Your task to perform on an android device: What's the weather? Image 0: 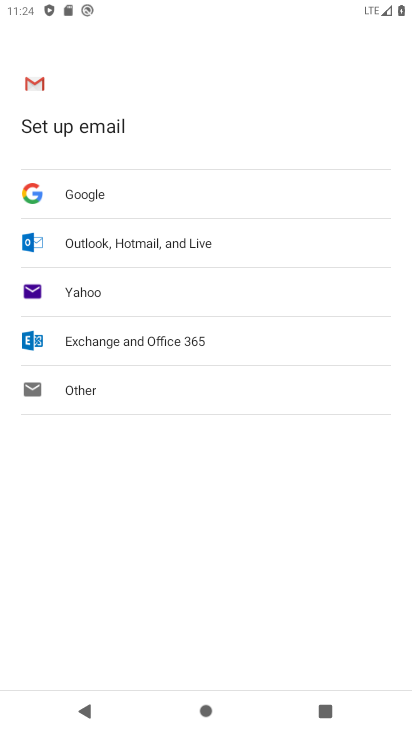
Step 0: press home button
Your task to perform on an android device: What's the weather? Image 1: 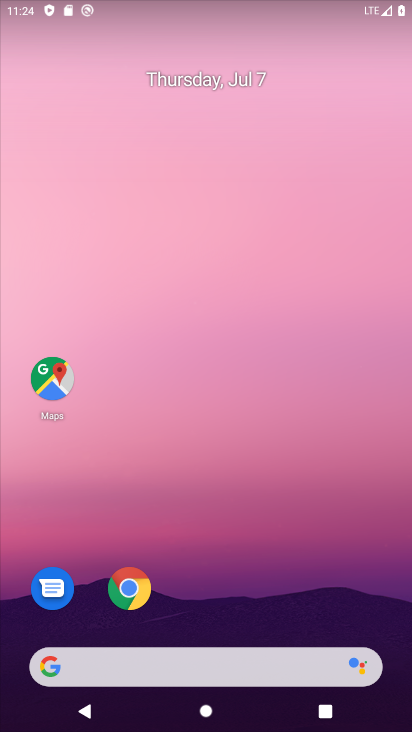
Step 1: click (142, 668)
Your task to perform on an android device: What's the weather? Image 2: 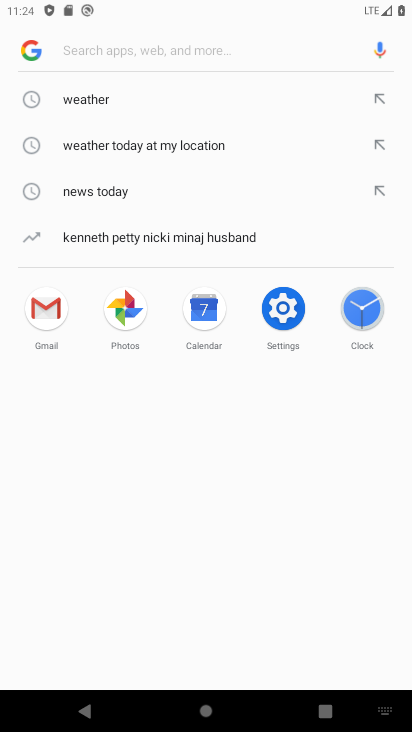
Step 2: type "what's the weather?"
Your task to perform on an android device: What's the weather? Image 3: 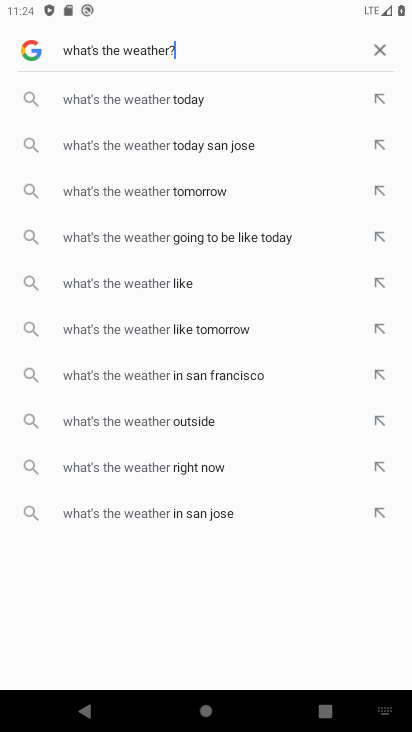
Step 3: click (161, 86)
Your task to perform on an android device: What's the weather? Image 4: 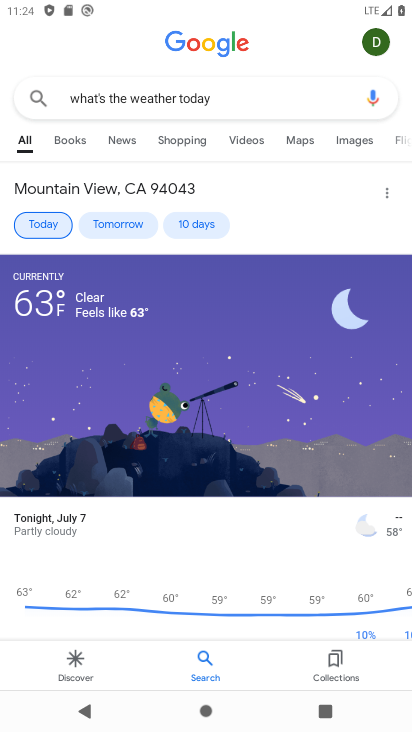
Step 4: task complete